Your task to perform on an android device: add a label to a message in the gmail app Image 0: 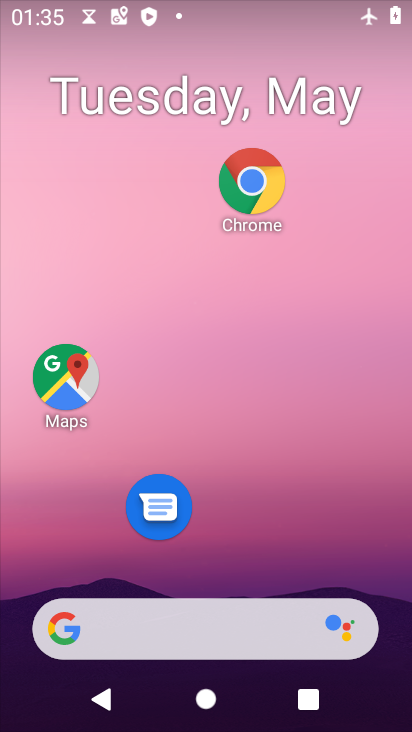
Step 0: drag from (285, 575) to (281, 302)
Your task to perform on an android device: add a label to a message in the gmail app Image 1: 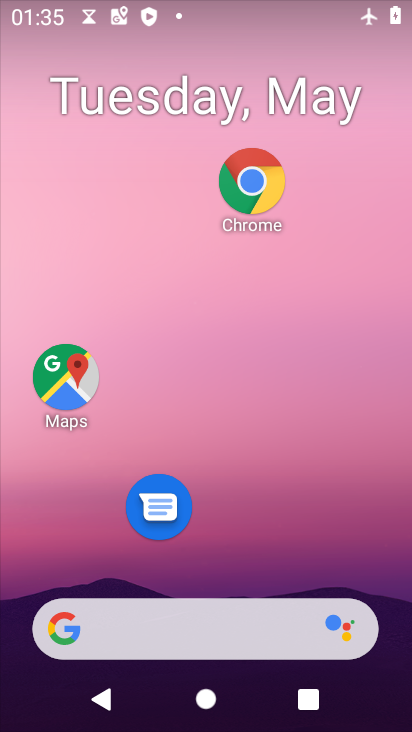
Step 1: drag from (275, 581) to (292, 298)
Your task to perform on an android device: add a label to a message in the gmail app Image 2: 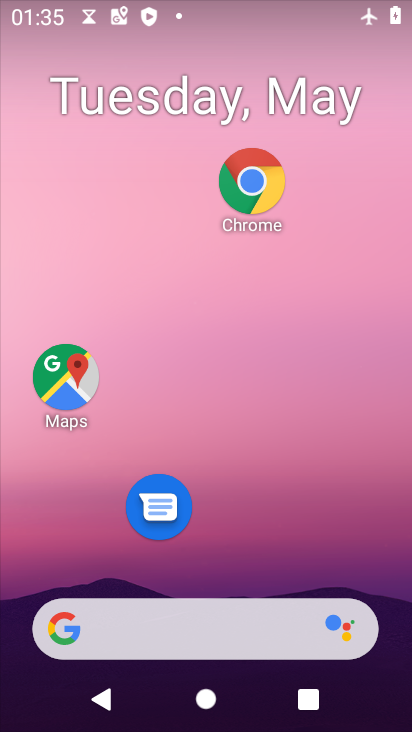
Step 2: drag from (268, 535) to (265, 344)
Your task to perform on an android device: add a label to a message in the gmail app Image 3: 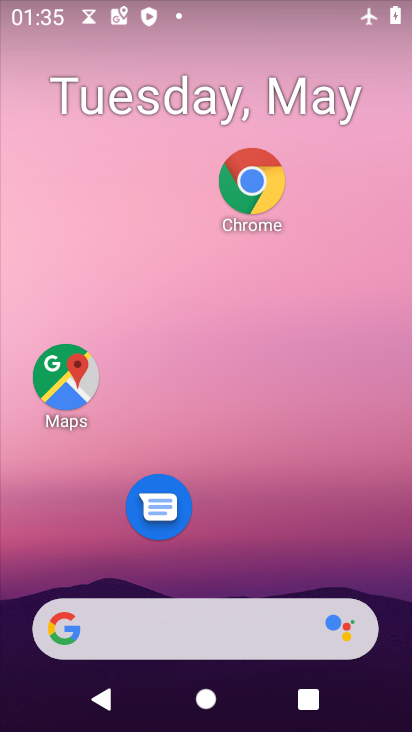
Step 3: drag from (254, 493) to (248, 316)
Your task to perform on an android device: add a label to a message in the gmail app Image 4: 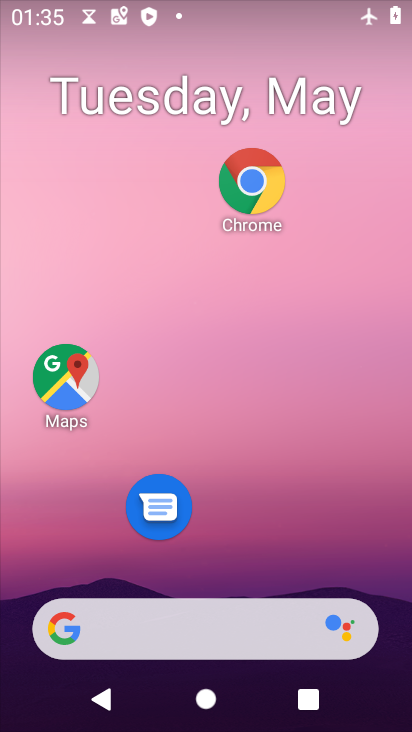
Step 4: drag from (224, 597) to (244, 172)
Your task to perform on an android device: add a label to a message in the gmail app Image 5: 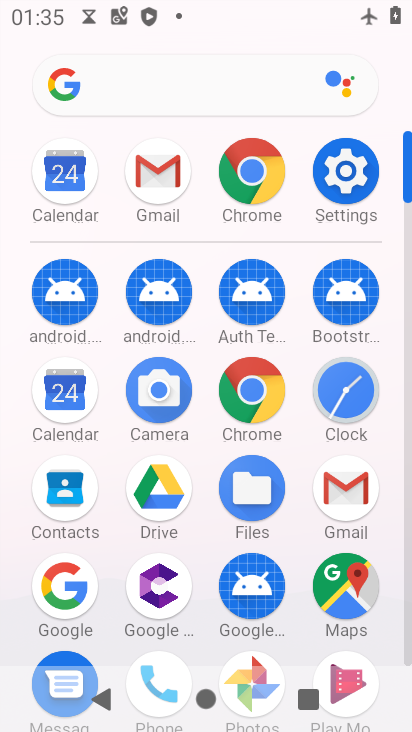
Step 5: click (161, 165)
Your task to perform on an android device: add a label to a message in the gmail app Image 6: 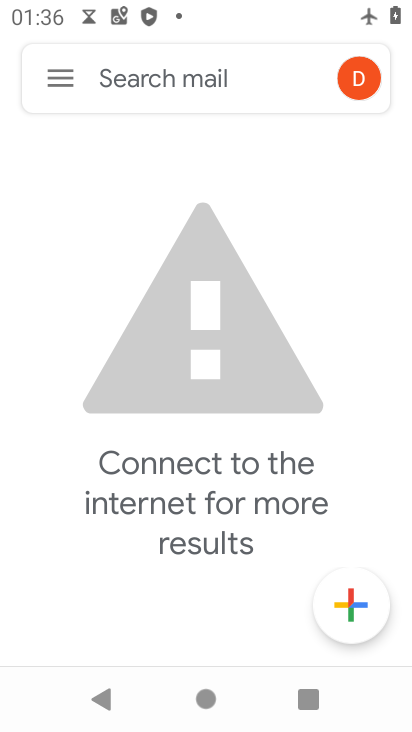
Step 6: click (54, 73)
Your task to perform on an android device: add a label to a message in the gmail app Image 7: 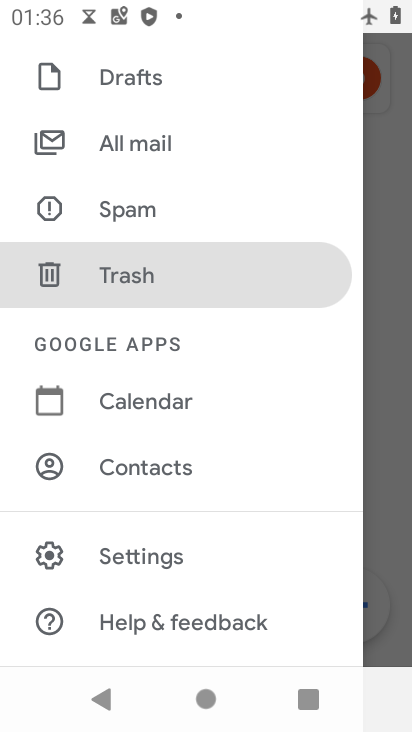
Step 7: click (142, 551)
Your task to perform on an android device: add a label to a message in the gmail app Image 8: 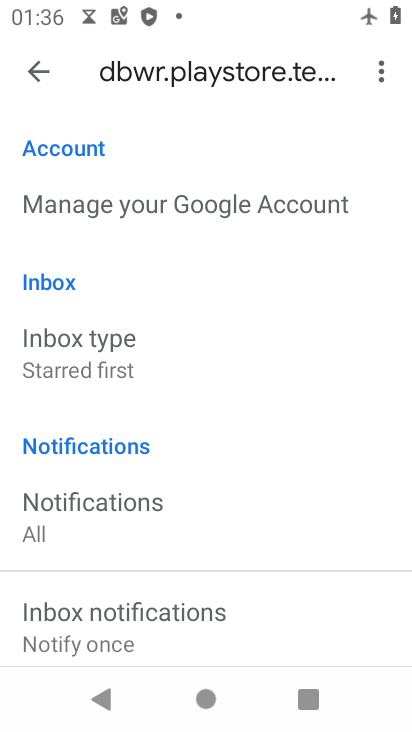
Step 8: click (30, 85)
Your task to perform on an android device: add a label to a message in the gmail app Image 9: 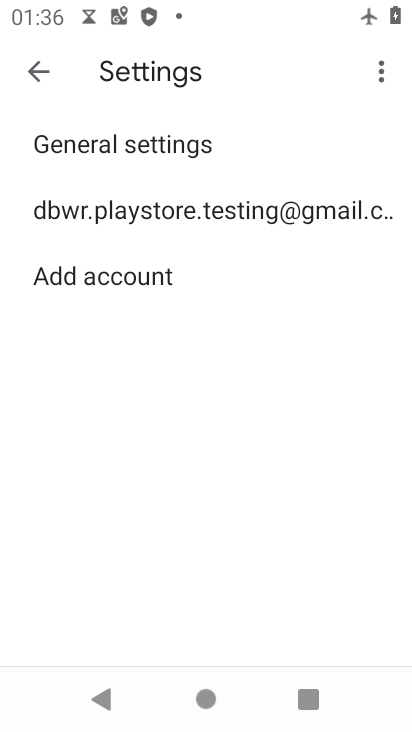
Step 9: click (51, 79)
Your task to perform on an android device: add a label to a message in the gmail app Image 10: 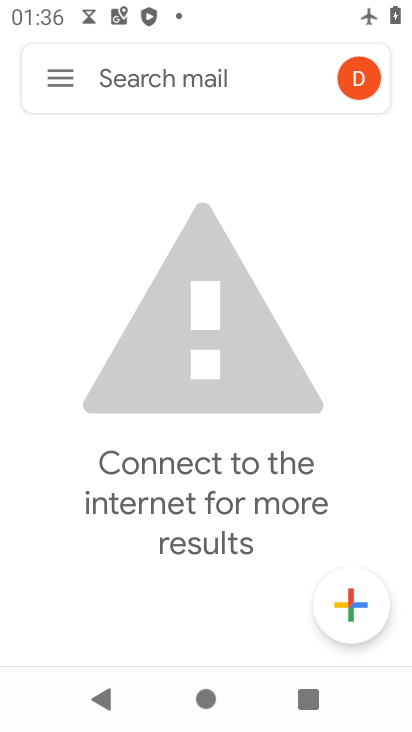
Step 10: click (53, 87)
Your task to perform on an android device: add a label to a message in the gmail app Image 11: 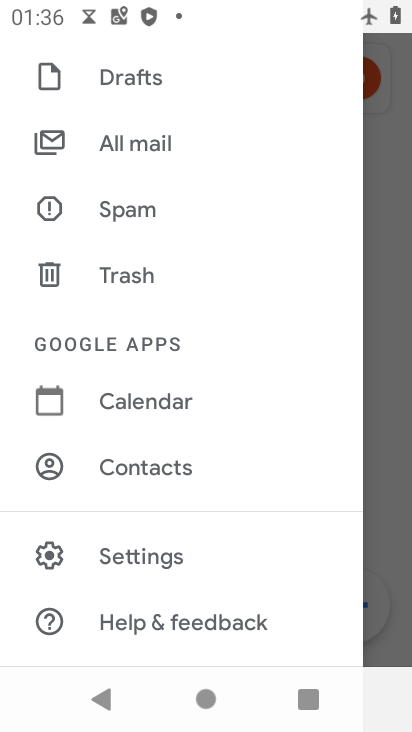
Step 11: click (138, 143)
Your task to perform on an android device: add a label to a message in the gmail app Image 12: 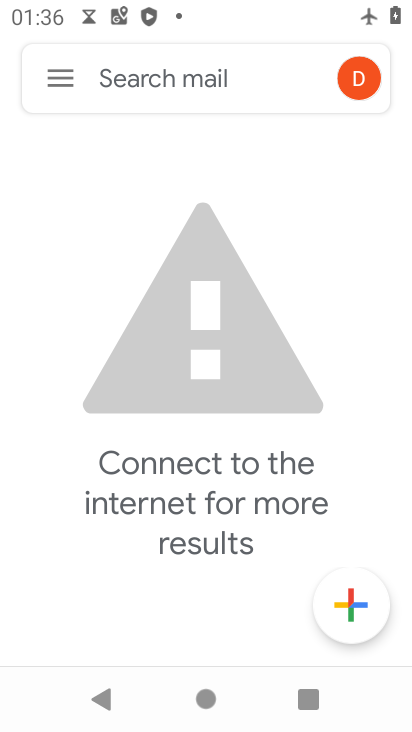
Step 12: task complete